Your task to perform on an android device: delete a single message in the gmail app Image 0: 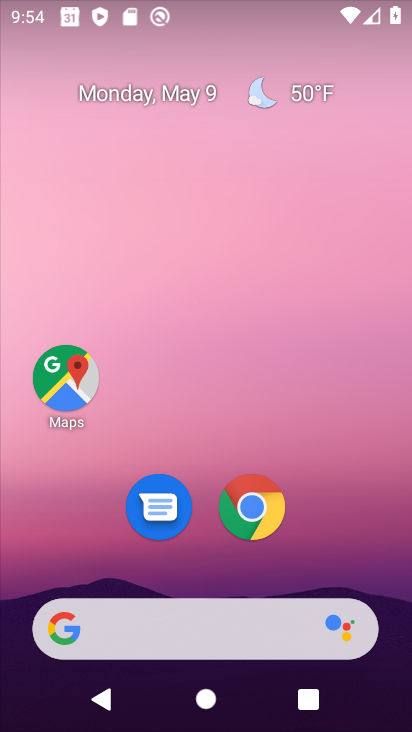
Step 0: drag from (330, 535) to (312, 104)
Your task to perform on an android device: delete a single message in the gmail app Image 1: 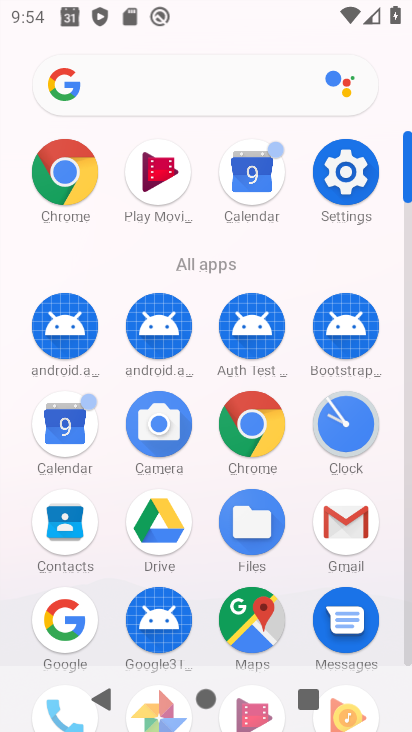
Step 1: click (337, 514)
Your task to perform on an android device: delete a single message in the gmail app Image 2: 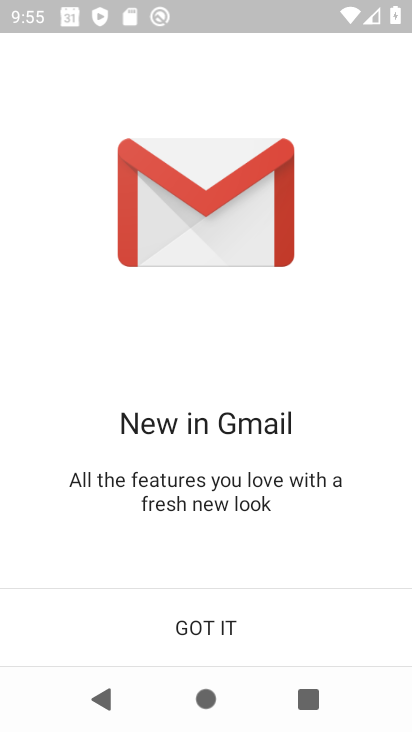
Step 2: click (225, 620)
Your task to perform on an android device: delete a single message in the gmail app Image 3: 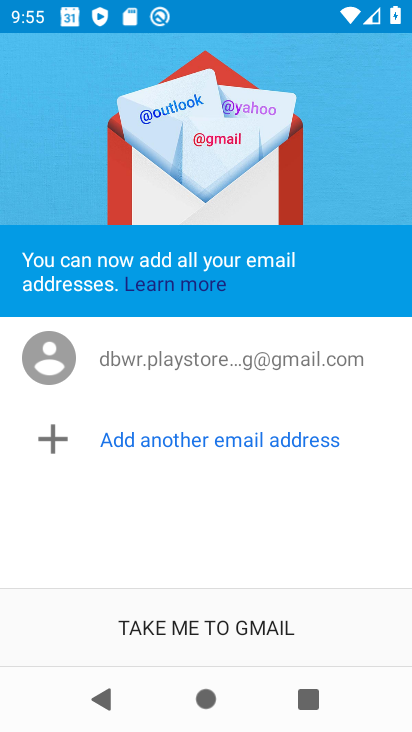
Step 3: click (179, 634)
Your task to perform on an android device: delete a single message in the gmail app Image 4: 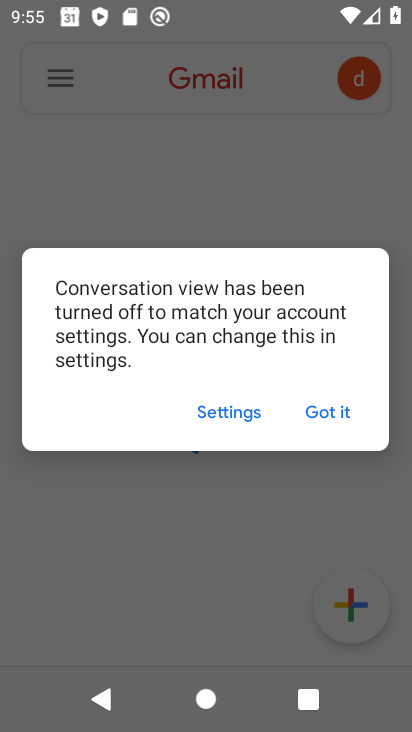
Step 4: click (325, 413)
Your task to perform on an android device: delete a single message in the gmail app Image 5: 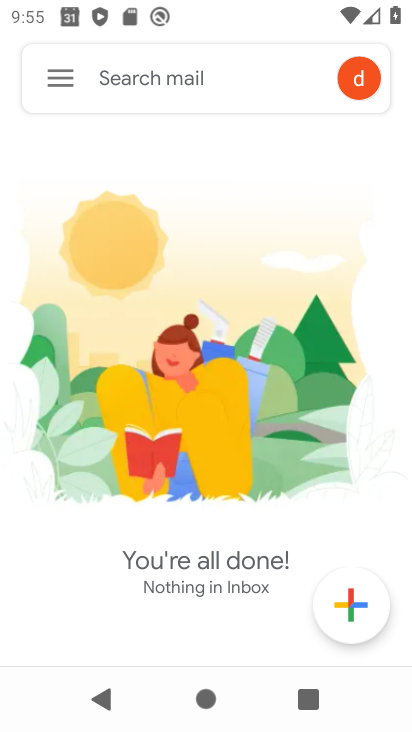
Step 5: click (68, 84)
Your task to perform on an android device: delete a single message in the gmail app Image 6: 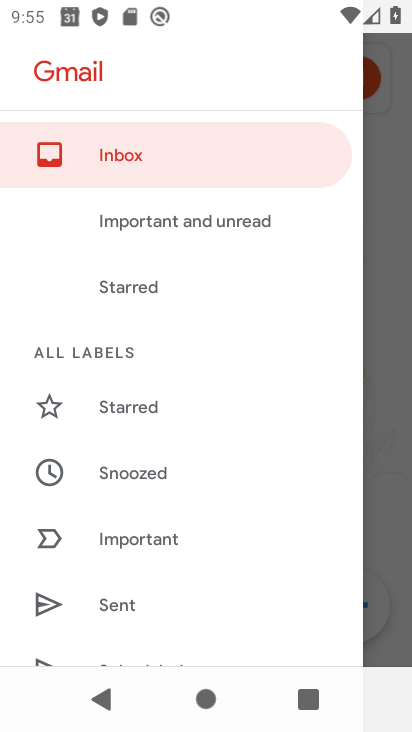
Step 6: drag from (208, 604) to (171, 213)
Your task to perform on an android device: delete a single message in the gmail app Image 7: 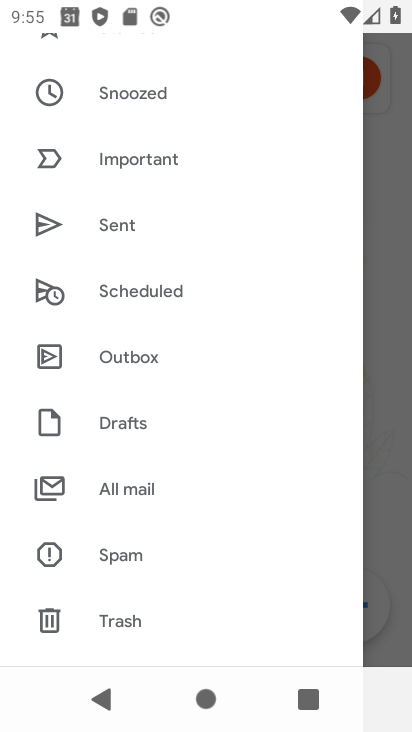
Step 7: click (150, 476)
Your task to perform on an android device: delete a single message in the gmail app Image 8: 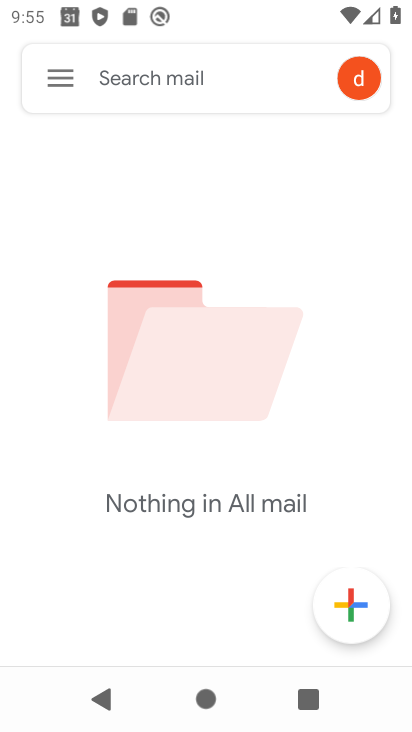
Step 8: task complete